Your task to perform on an android device: Show me popular videos on Youtube Image 0: 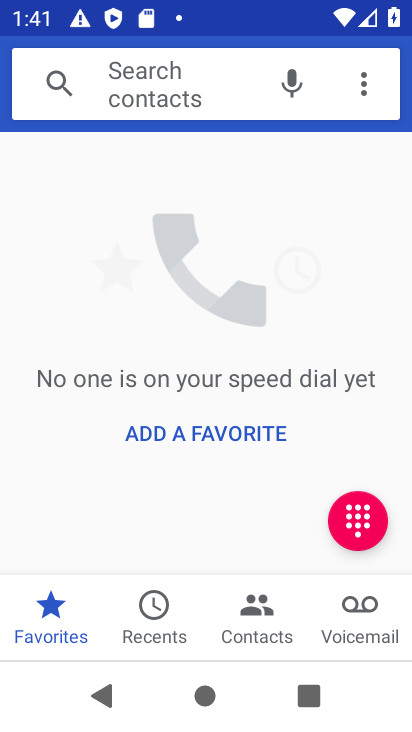
Step 0: press home button
Your task to perform on an android device: Show me popular videos on Youtube Image 1: 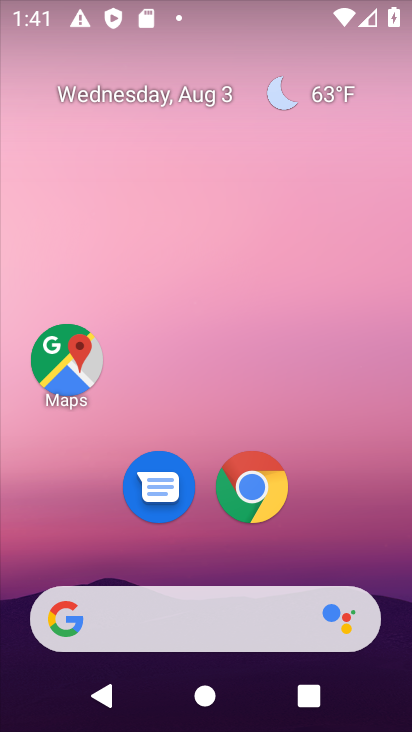
Step 1: drag from (360, 523) to (352, 673)
Your task to perform on an android device: Show me popular videos on Youtube Image 2: 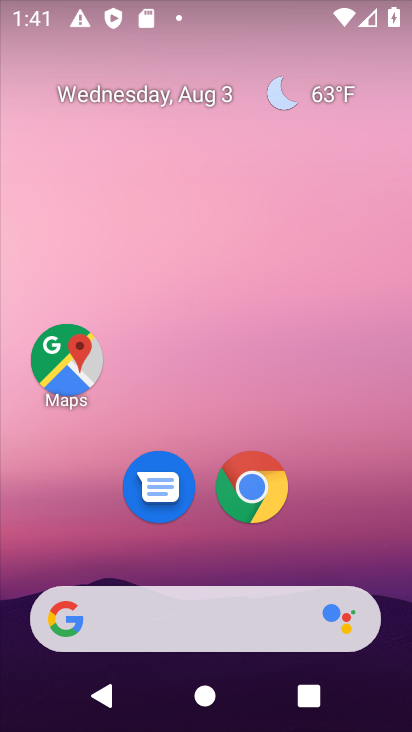
Step 2: drag from (302, 536) to (333, 36)
Your task to perform on an android device: Show me popular videos on Youtube Image 3: 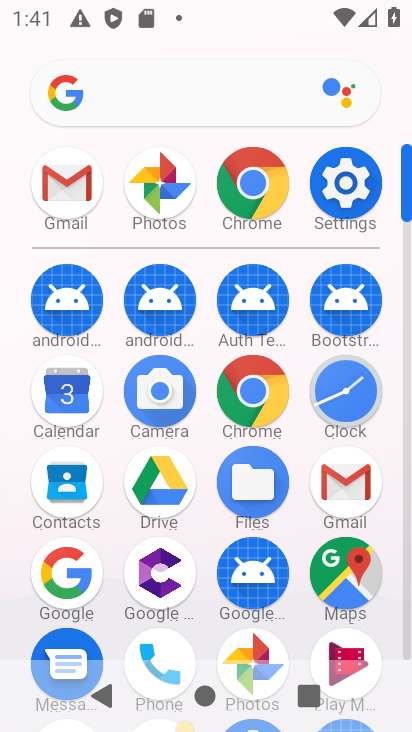
Step 3: drag from (296, 548) to (298, 136)
Your task to perform on an android device: Show me popular videos on Youtube Image 4: 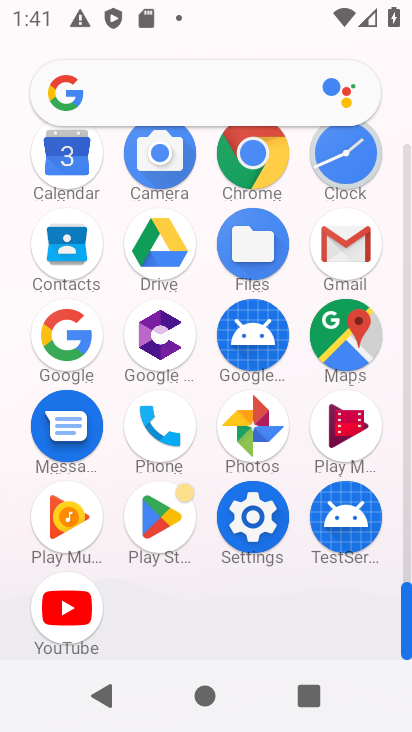
Step 4: click (58, 609)
Your task to perform on an android device: Show me popular videos on Youtube Image 5: 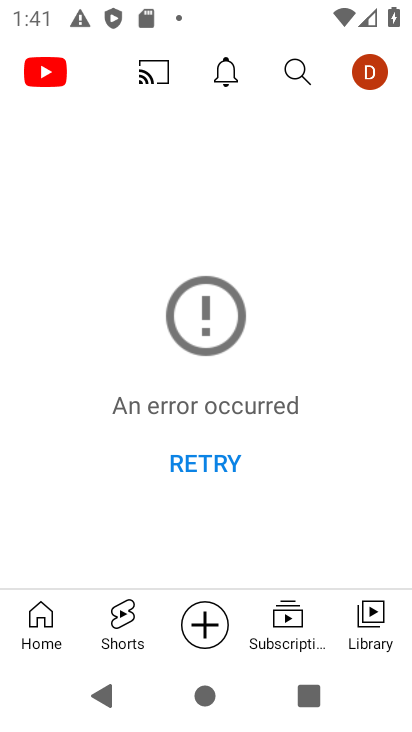
Step 5: click (306, 74)
Your task to perform on an android device: Show me popular videos on Youtube Image 6: 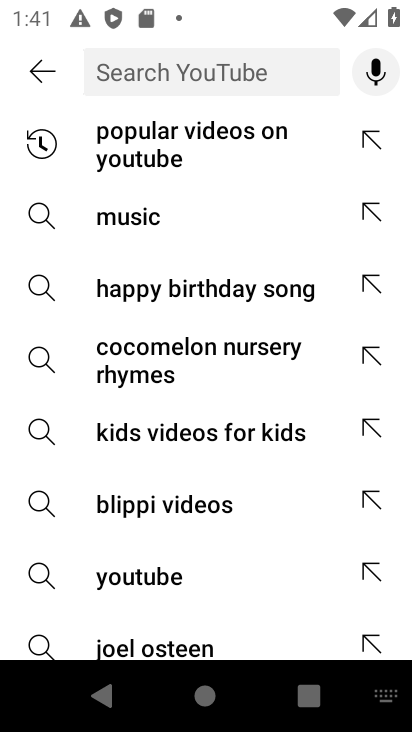
Step 6: click (157, 135)
Your task to perform on an android device: Show me popular videos on Youtube Image 7: 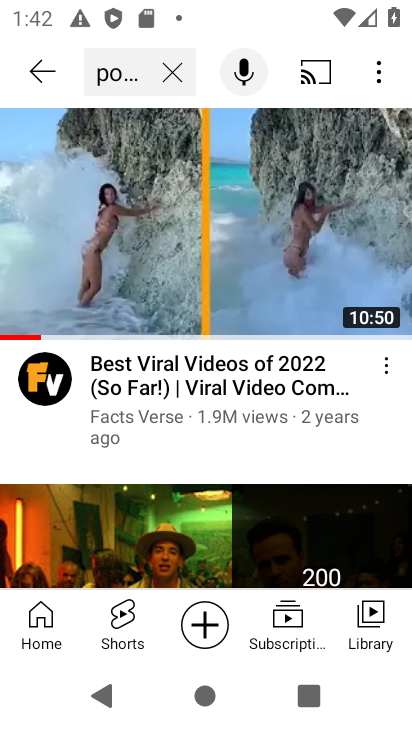
Step 7: task complete